Your task to perform on an android device: change the upload size in google photos Image 0: 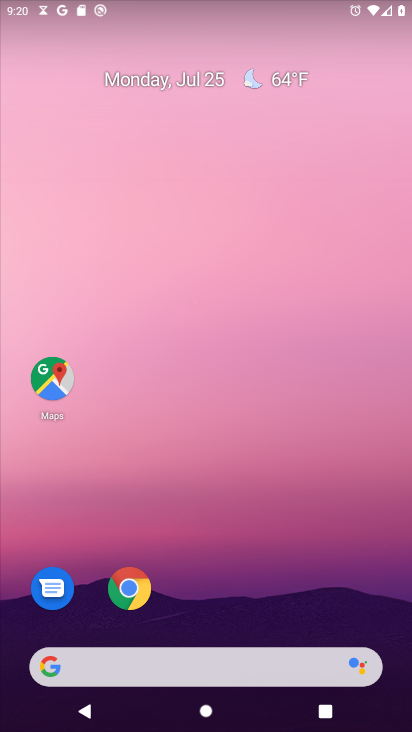
Step 0: drag from (211, 651) to (208, 97)
Your task to perform on an android device: change the upload size in google photos Image 1: 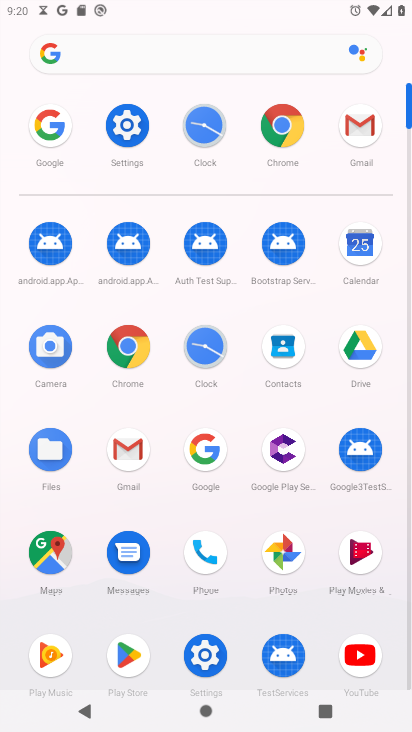
Step 1: click (284, 557)
Your task to perform on an android device: change the upload size in google photos Image 2: 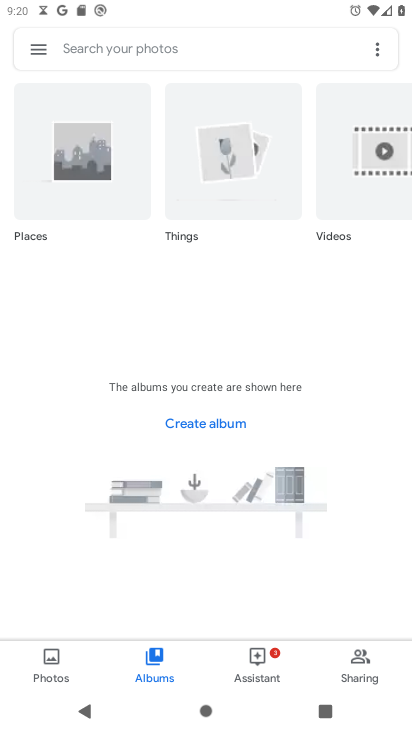
Step 2: click (37, 53)
Your task to perform on an android device: change the upload size in google photos Image 3: 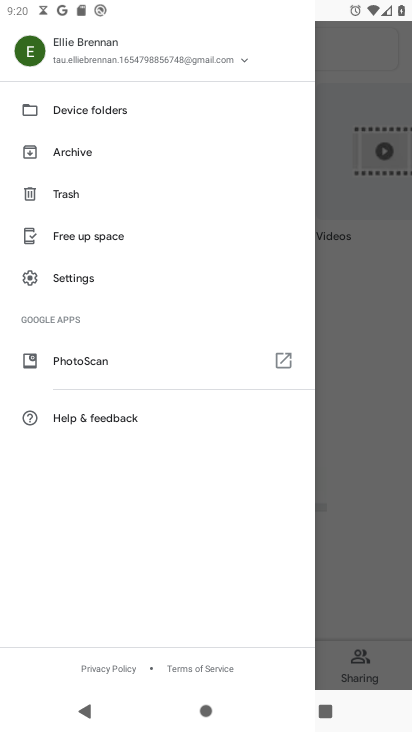
Step 3: click (85, 270)
Your task to perform on an android device: change the upload size in google photos Image 4: 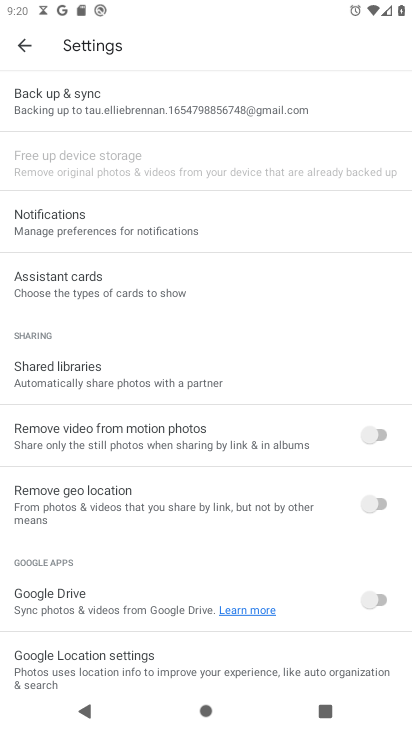
Step 4: click (108, 112)
Your task to perform on an android device: change the upload size in google photos Image 5: 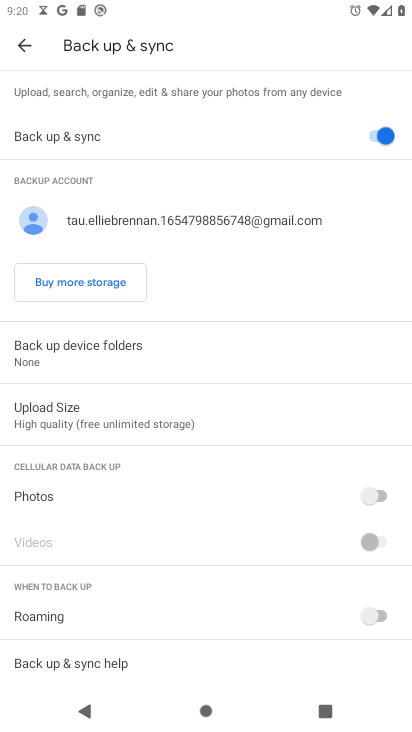
Step 5: click (134, 432)
Your task to perform on an android device: change the upload size in google photos Image 6: 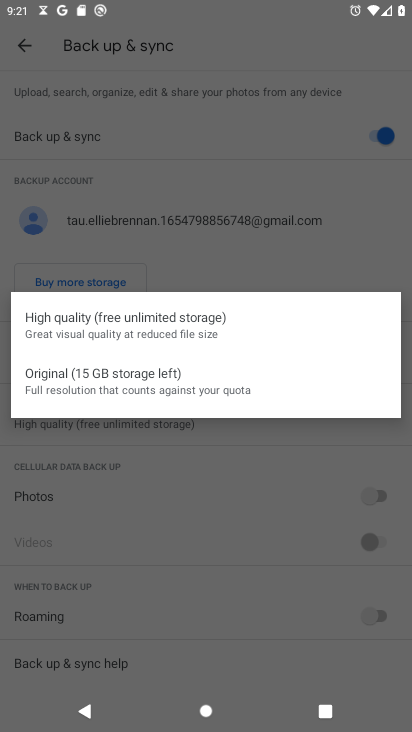
Step 6: click (56, 384)
Your task to perform on an android device: change the upload size in google photos Image 7: 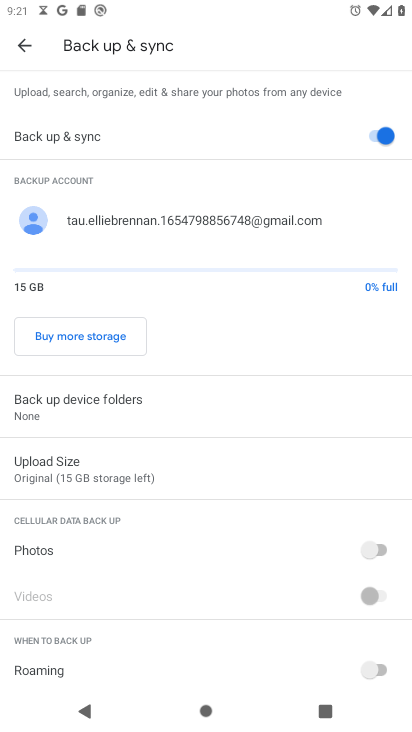
Step 7: task complete